Your task to perform on an android device: turn pop-ups on in chrome Image 0: 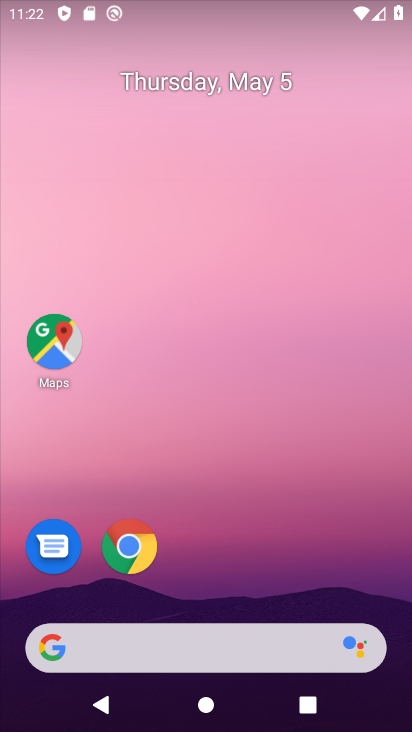
Step 0: click (129, 540)
Your task to perform on an android device: turn pop-ups on in chrome Image 1: 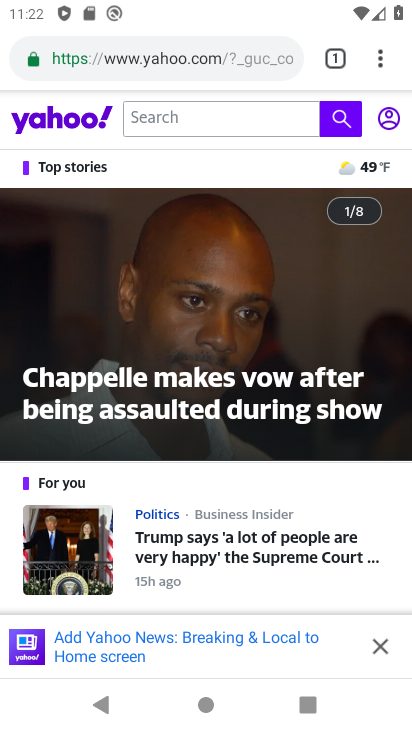
Step 1: click (377, 65)
Your task to perform on an android device: turn pop-ups on in chrome Image 2: 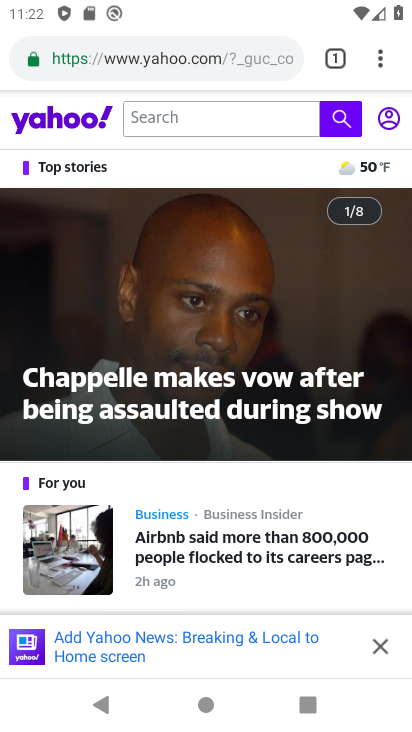
Step 2: click (380, 51)
Your task to perform on an android device: turn pop-ups on in chrome Image 3: 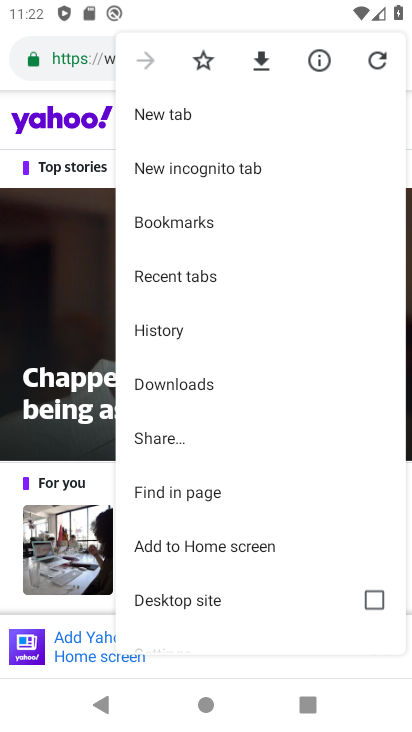
Step 3: drag from (223, 582) to (318, 254)
Your task to perform on an android device: turn pop-ups on in chrome Image 4: 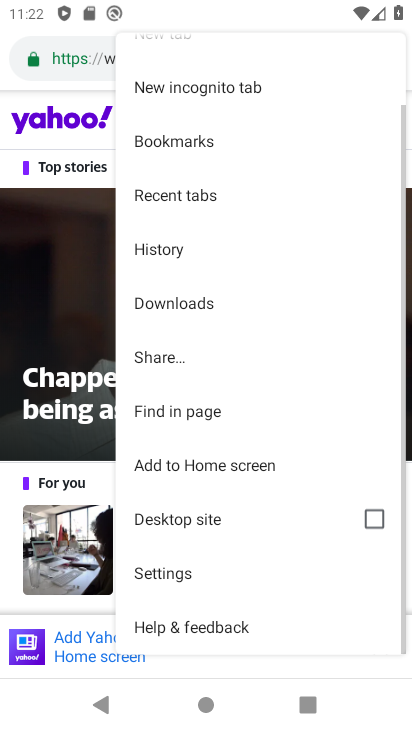
Step 4: click (192, 585)
Your task to perform on an android device: turn pop-ups on in chrome Image 5: 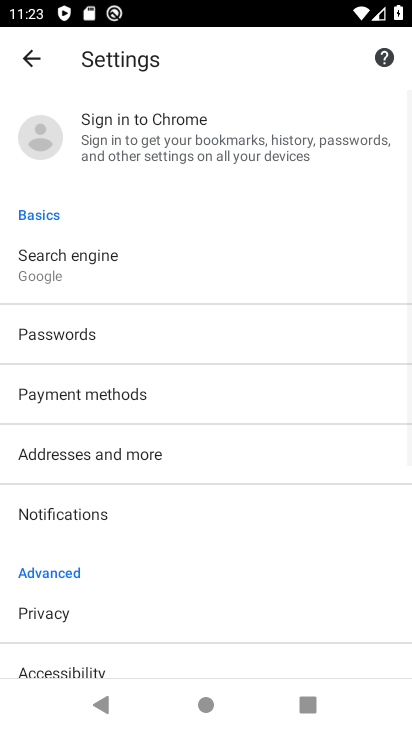
Step 5: drag from (188, 614) to (286, 238)
Your task to perform on an android device: turn pop-ups on in chrome Image 6: 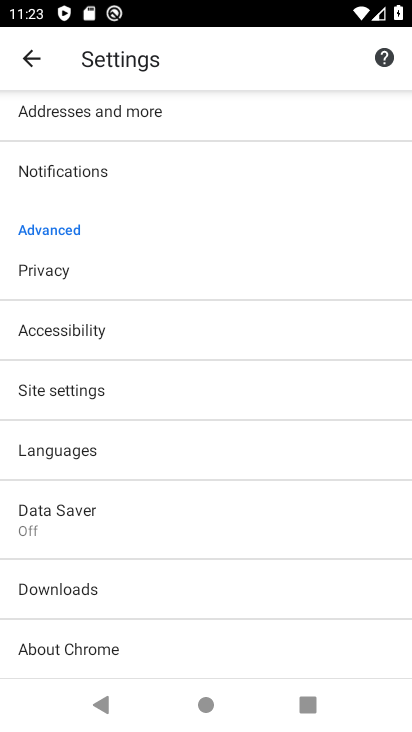
Step 6: click (140, 395)
Your task to perform on an android device: turn pop-ups on in chrome Image 7: 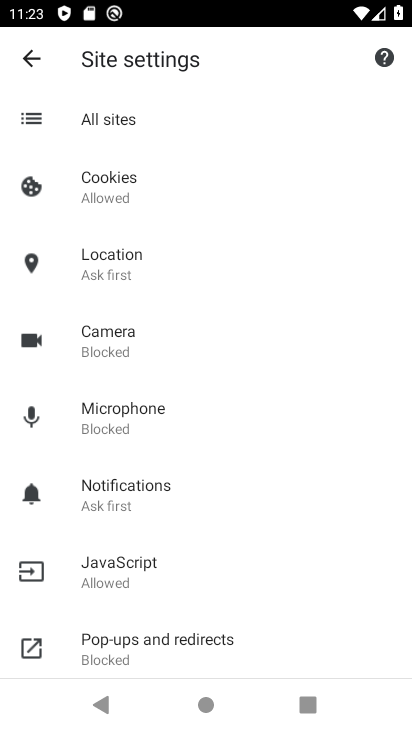
Step 7: click (132, 636)
Your task to perform on an android device: turn pop-ups on in chrome Image 8: 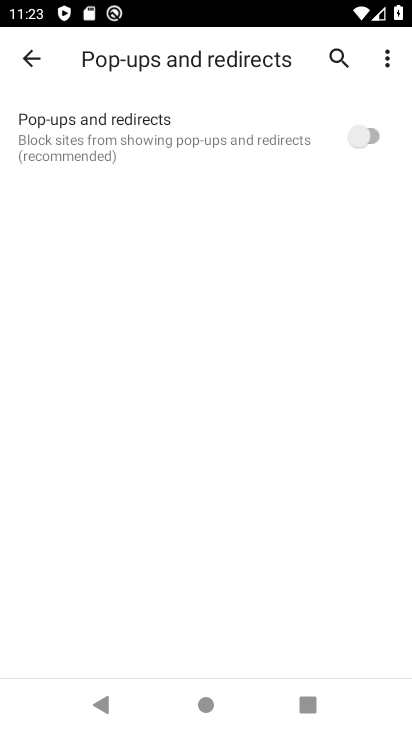
Step 8: press back button
Your task to perform on an android device: turn pop-ups on in chrome Image 9: 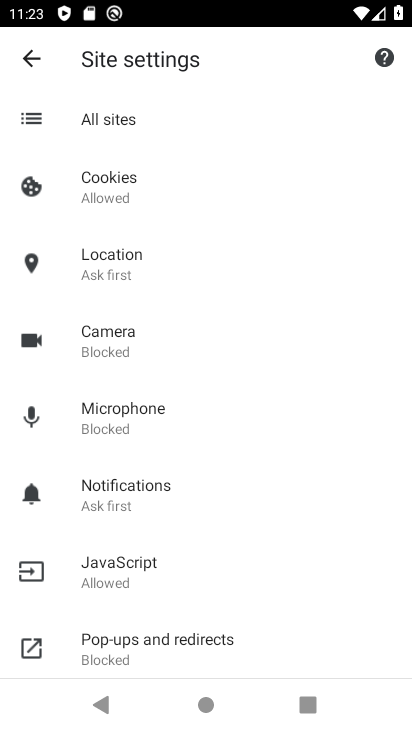
Step 9: click (276, 642)
Your task to perform on an android device: turn pop-ups on in chrome Image 10: 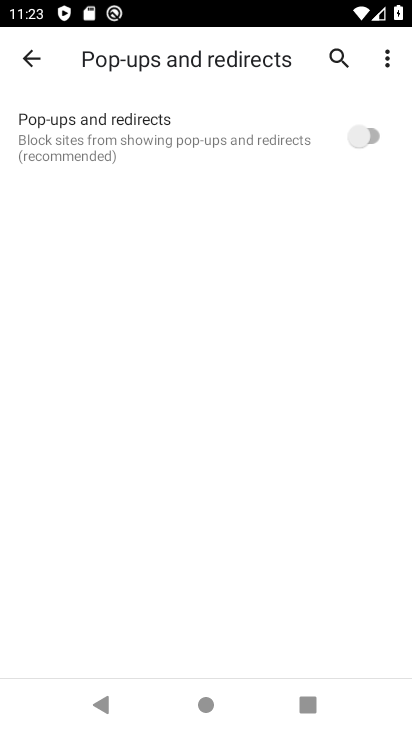
Step 10: click (354, 148)
Your task to perform on an android device: turn pop-ups on in chrome Image 11: 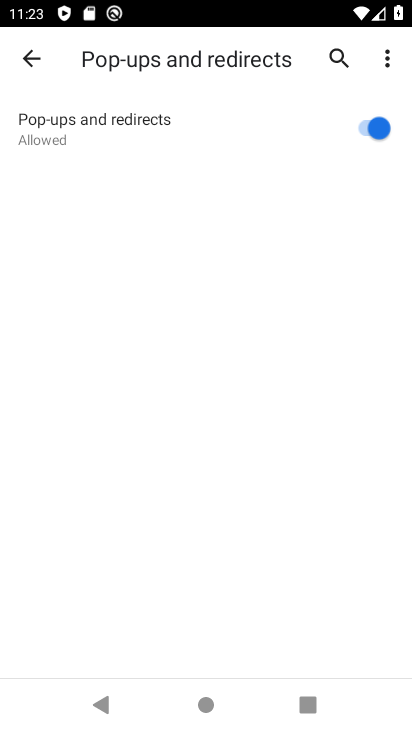
Step 11: task complete